Your task to perform on an android device: turn on improve location accuracy Image 0: 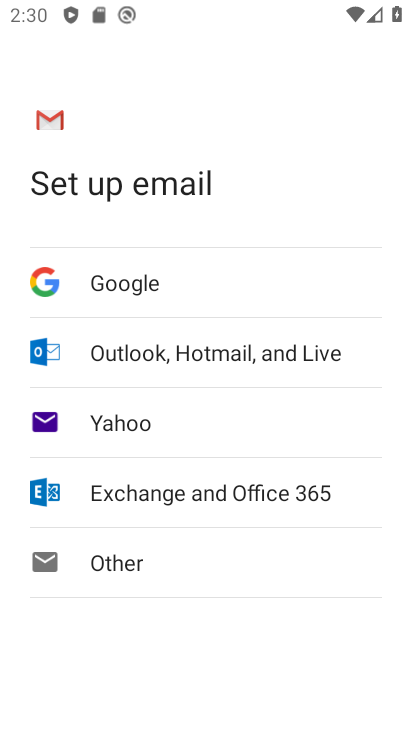
Step 0: press home button
Your task to perform on an android device: turn on improve location accuracy Image 1: 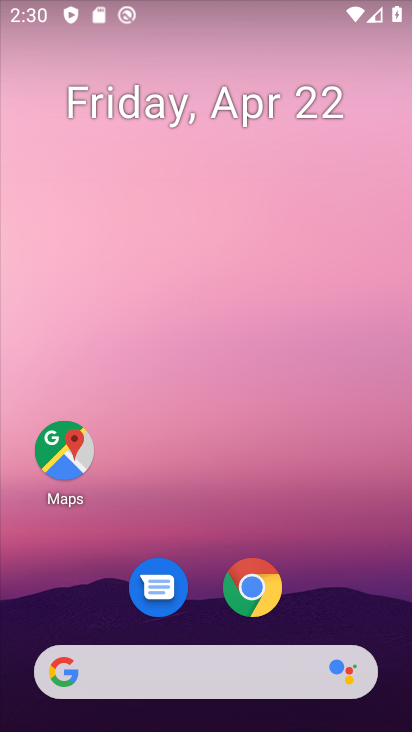
Step 1: drag from (305, 562) to (322, 185)
Your task to perform on an android device: turn on improve location accuracy Image 2: 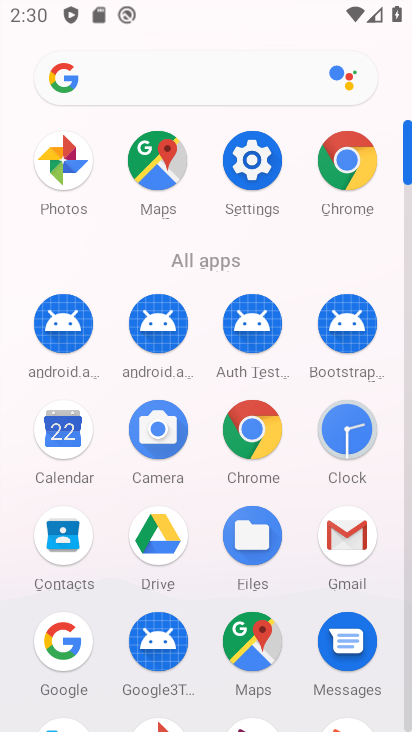
Step 2: click (268, 167)
Your task to perform on an android device: turn on improve location accuracy Image 3: 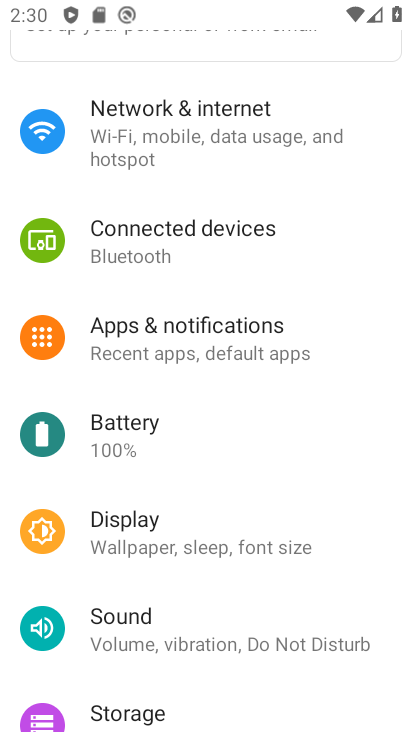
Step 3: drag from (211, 646) to (244, 365)
Your task to perform on an android device: turn on improve location accuracy Image 4: 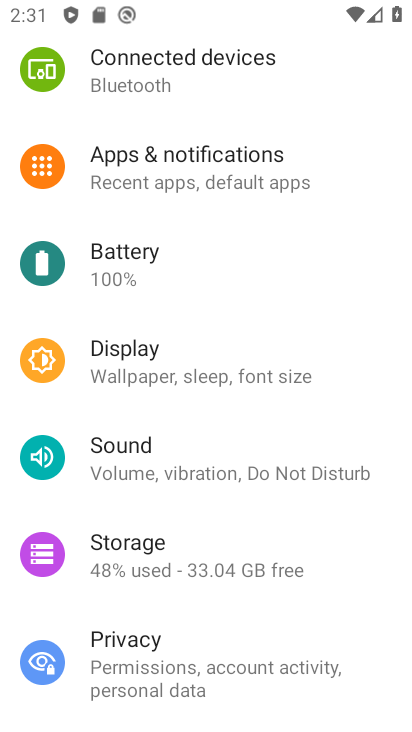
Step 4: drag from (197, 656) to (261, 254)
Your task to perform on an android device: turn on improve location accuracy Image 5: 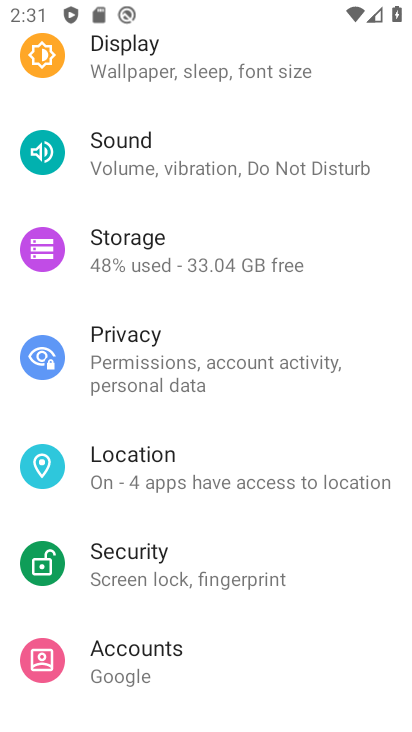
Step 5: click (201, 487)
Your task to perform on an android device: turn on improve location accuracy Image 6: 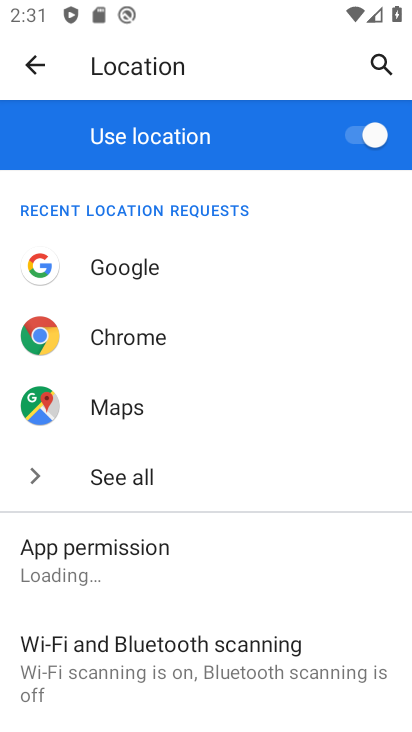
Step 6: drag from (206, 612) to (268, 300)
Your task to perform on an android device: turn on improve location accuracy Image 7: 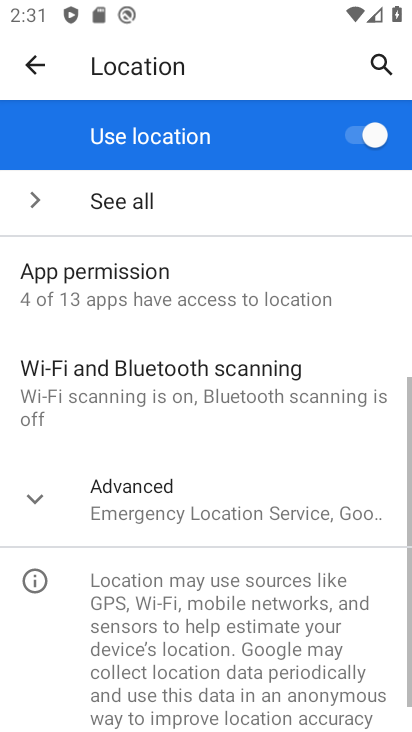
Step 7: click (34, 503)
Your task to perform on an android device: turn on improve location accuracy Image 8: 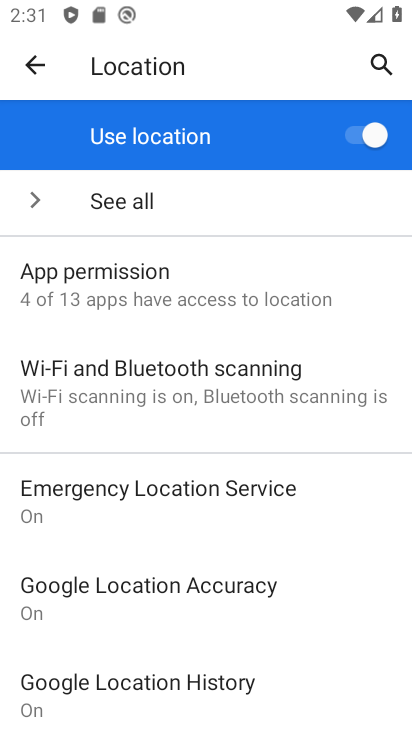
Step 8: click (218, 602)
Your task to perform on an android device: turn on improve location accuracy Image 9: 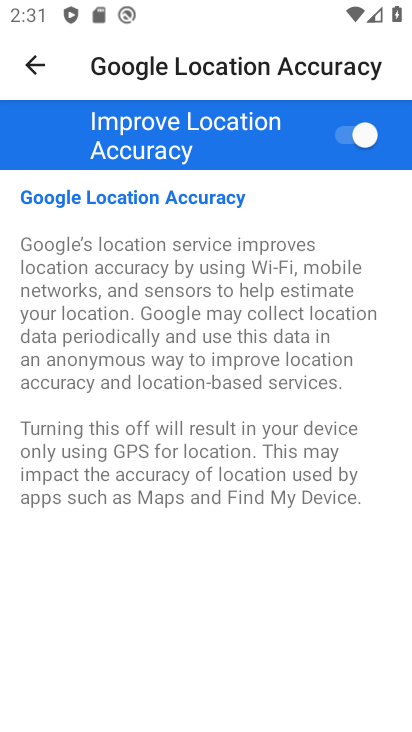
Step 9: task complete